Your task to perform on an android device: install app "Booking.com: Hotels and more" Image 0: 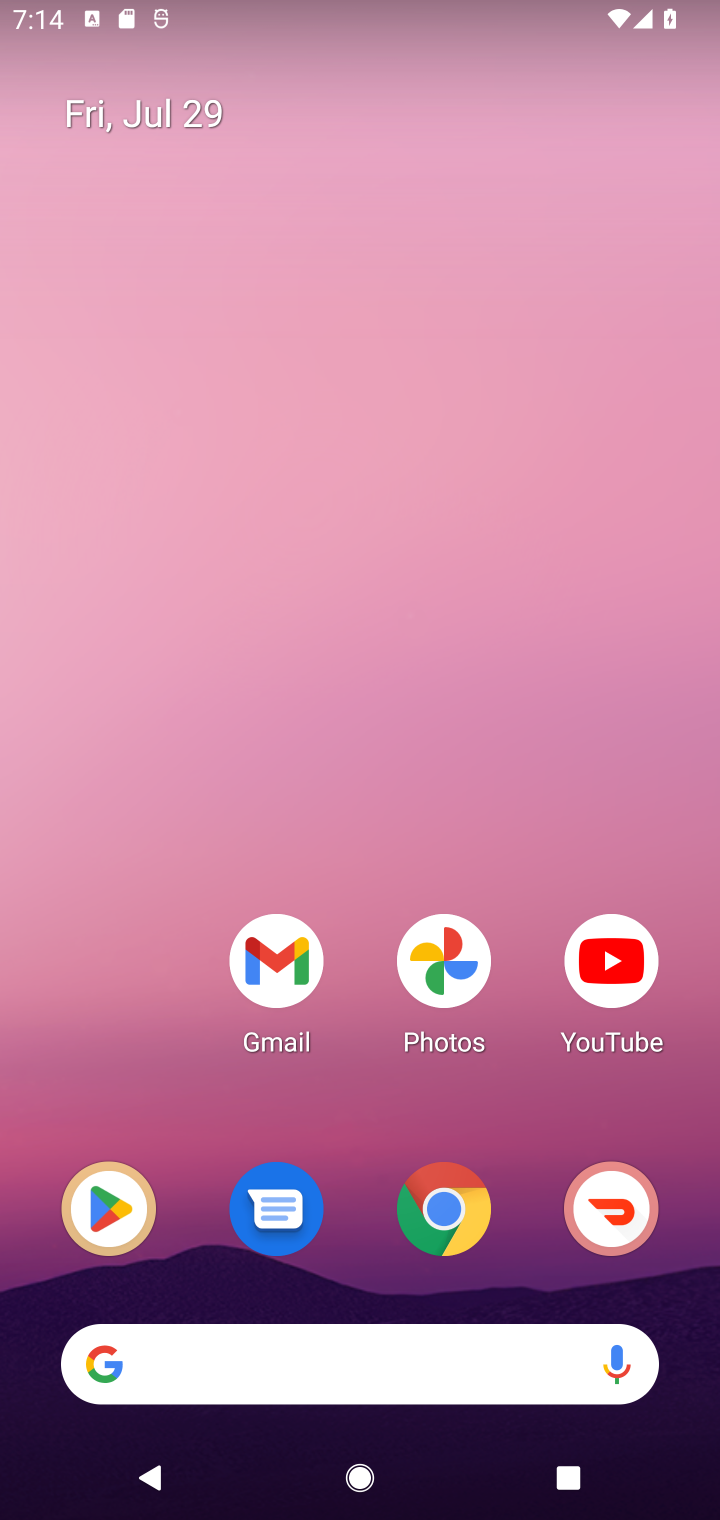
Step 0: click (105, 1207)
Your task to perform on an android device: install app "Booking.com: Hotels and more" Image 1: 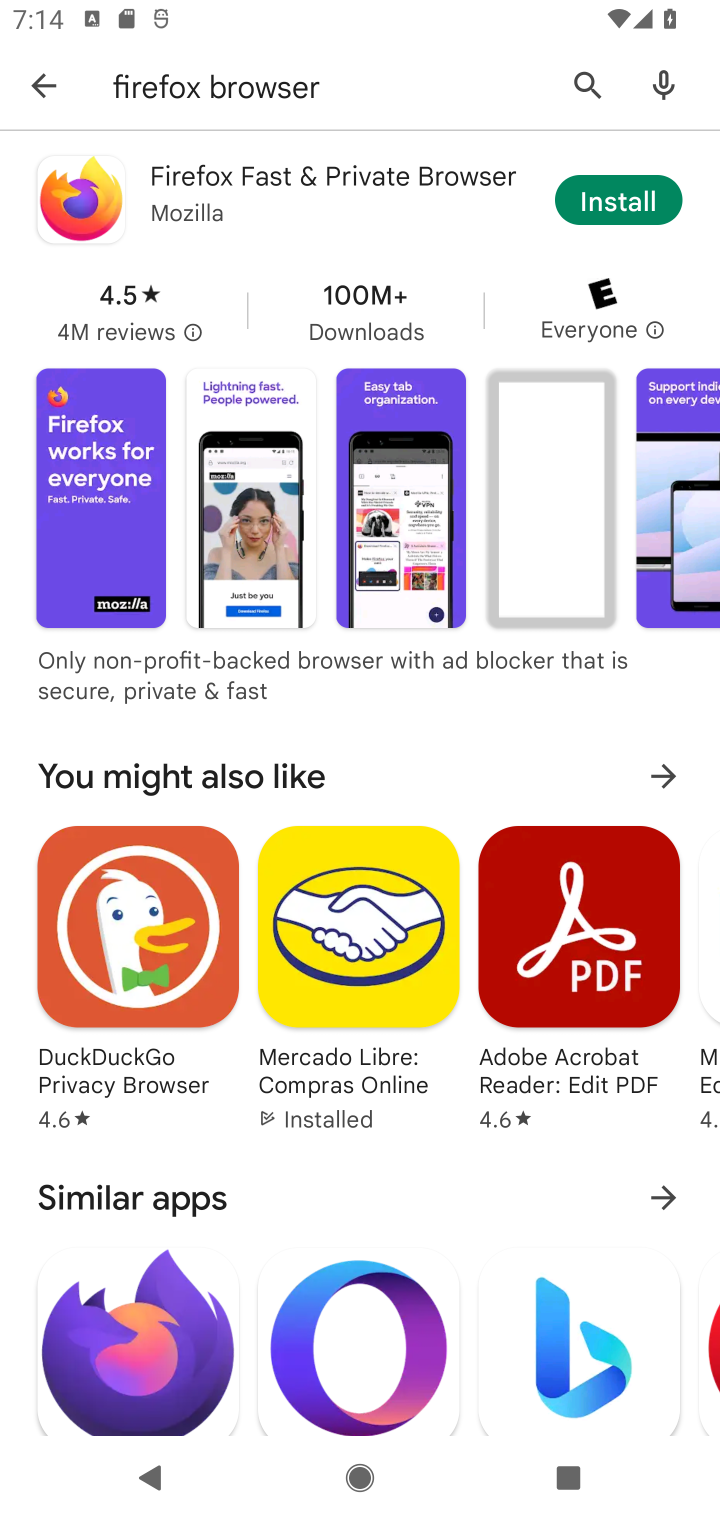
Step 1: click (584, 91)
Your task to perform on an android device: install app "Booking.com: Hotels and more" Image 2: 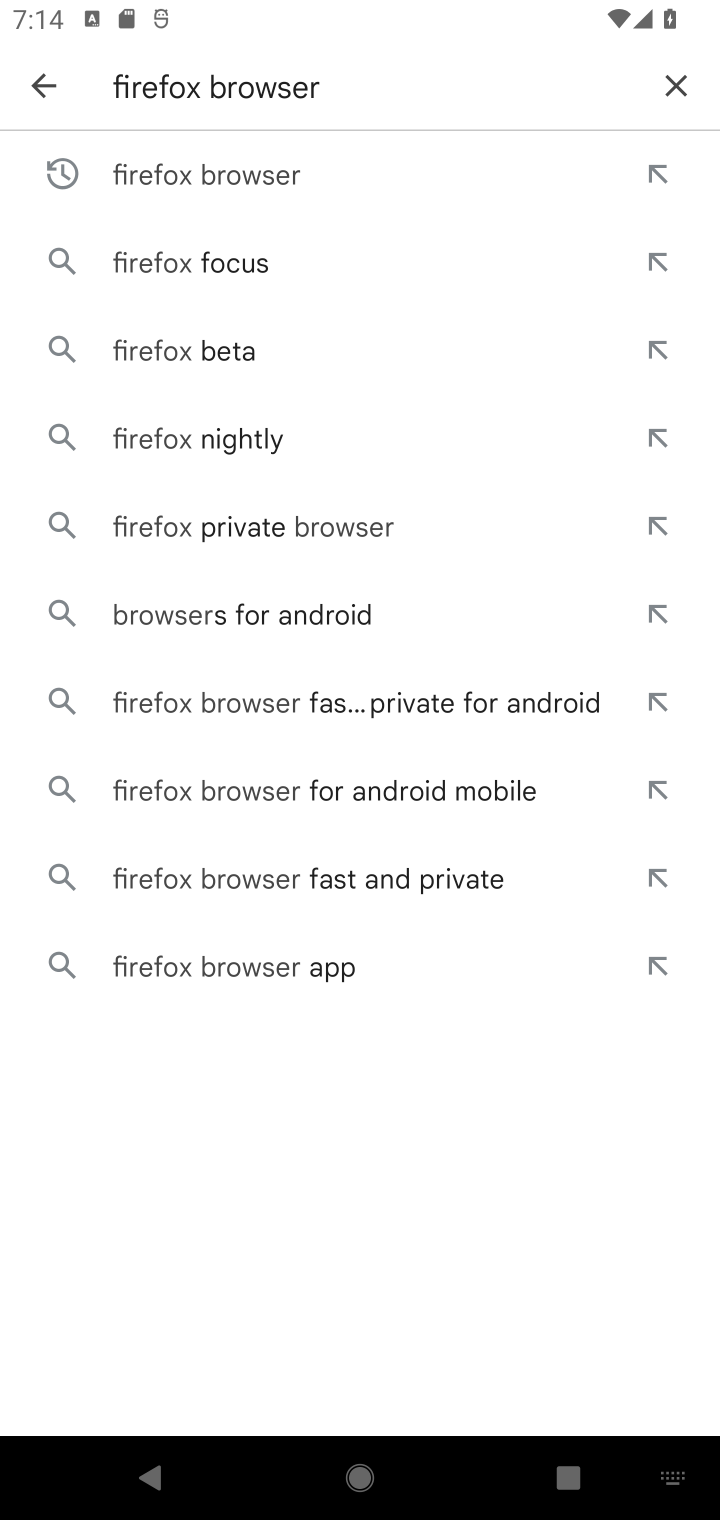
Step 2: click (673, 93)
Your task to perform on an android device: install app "Booking.com: Hotels and more" Image 3: 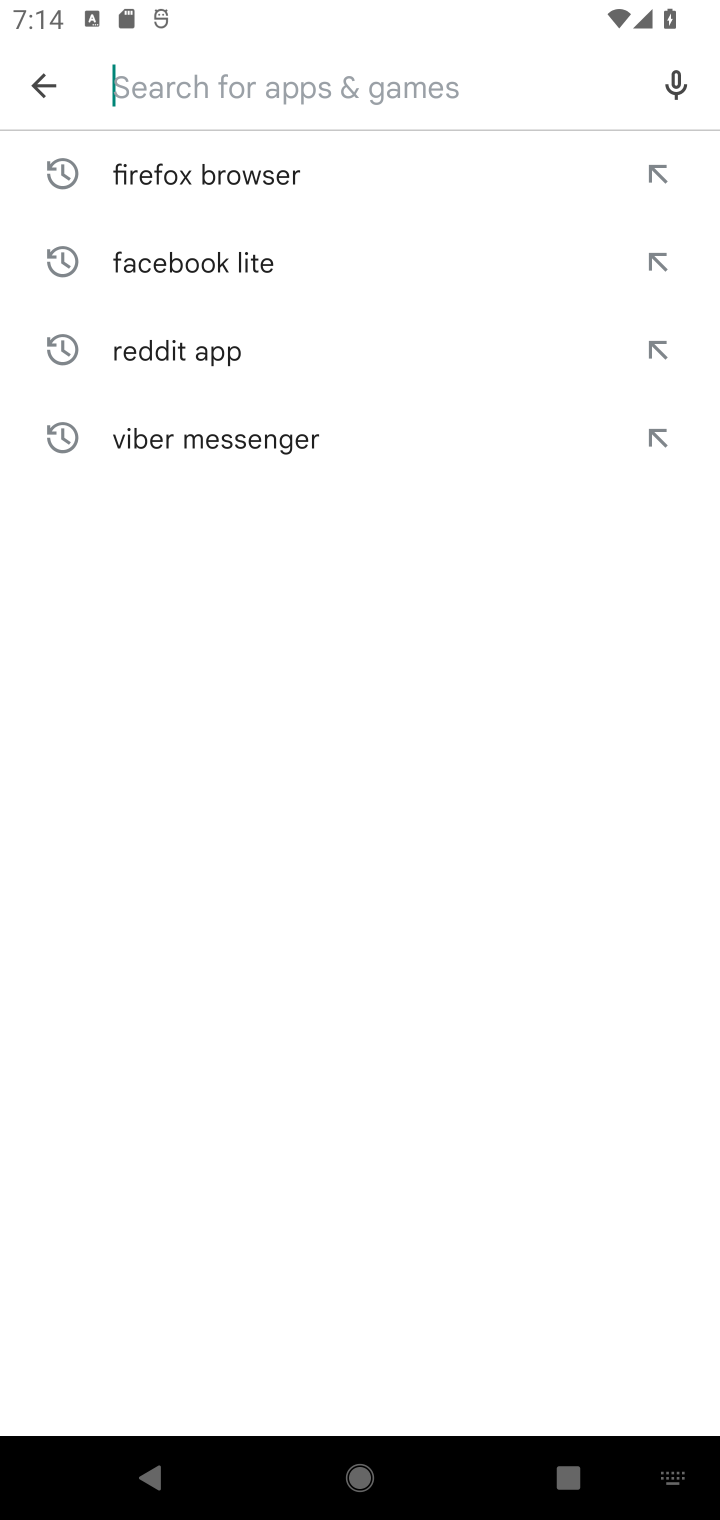
Step 3: type "Booking.com: Hotels and more"
Your task to perform on an android device: install app "Booking.com: Hotels and more" Image 4: 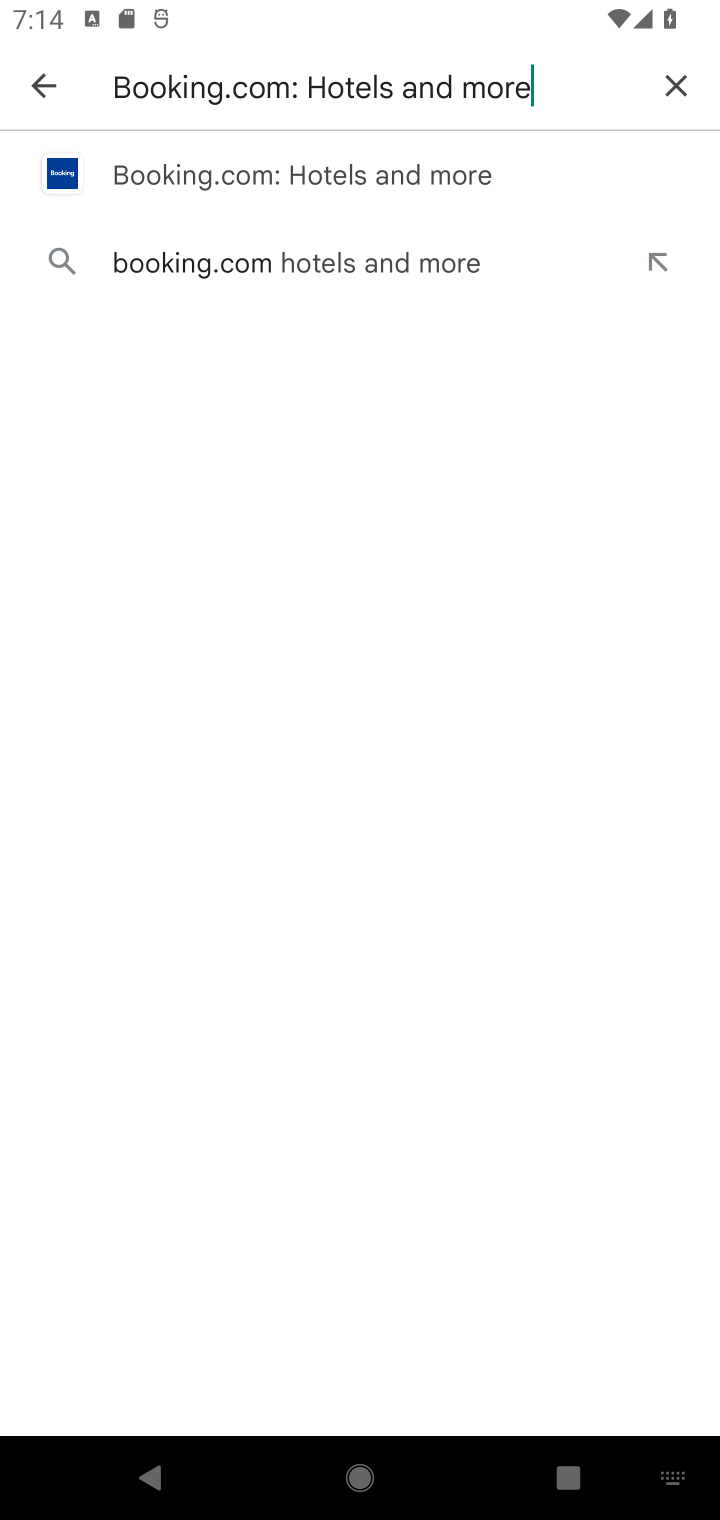
Step 4: click (329, 185)
Your task to perform on an android device: install app "Booking.com: Hotels and more" Image 5: 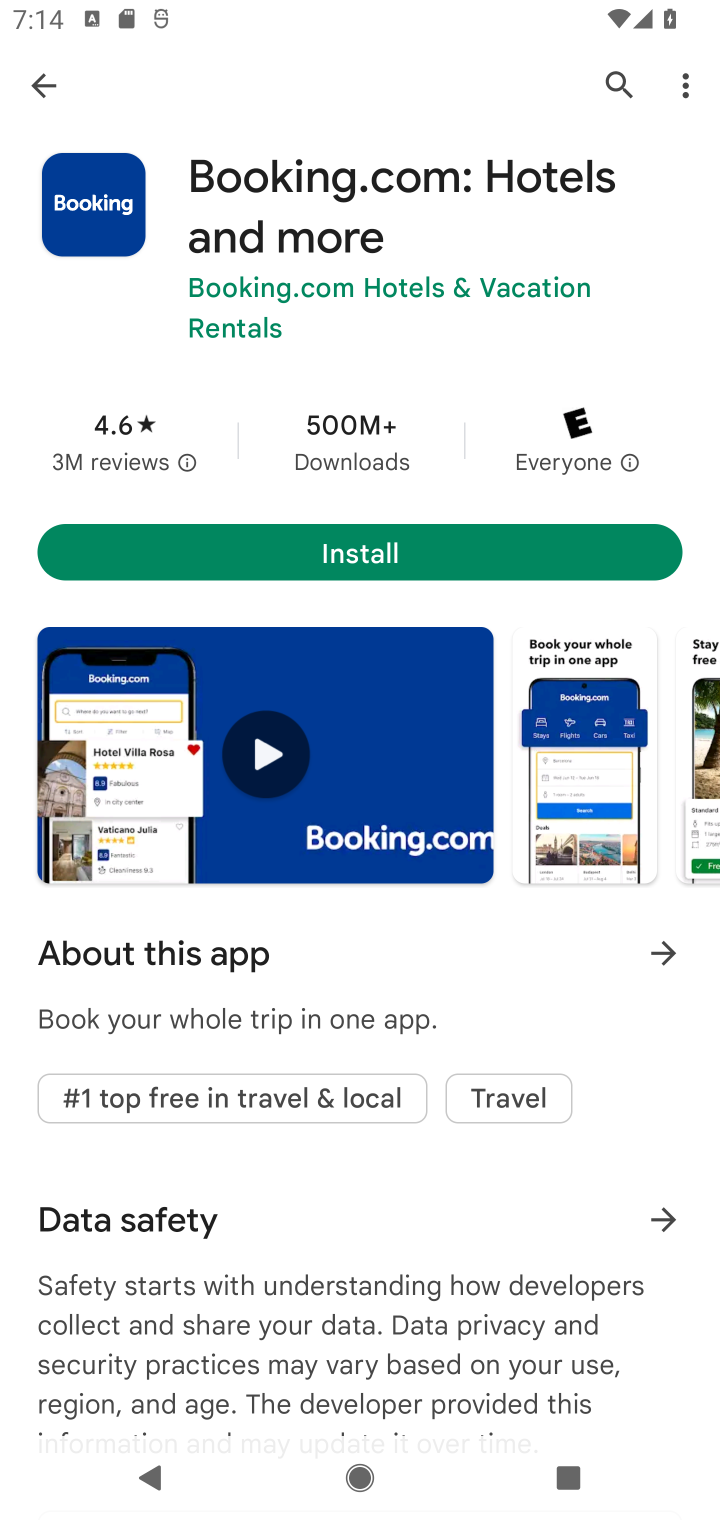
Step 5: click (315, 558)
Your task to perform on an android device: install app "Booking.com: Hotels and more" Image 6: 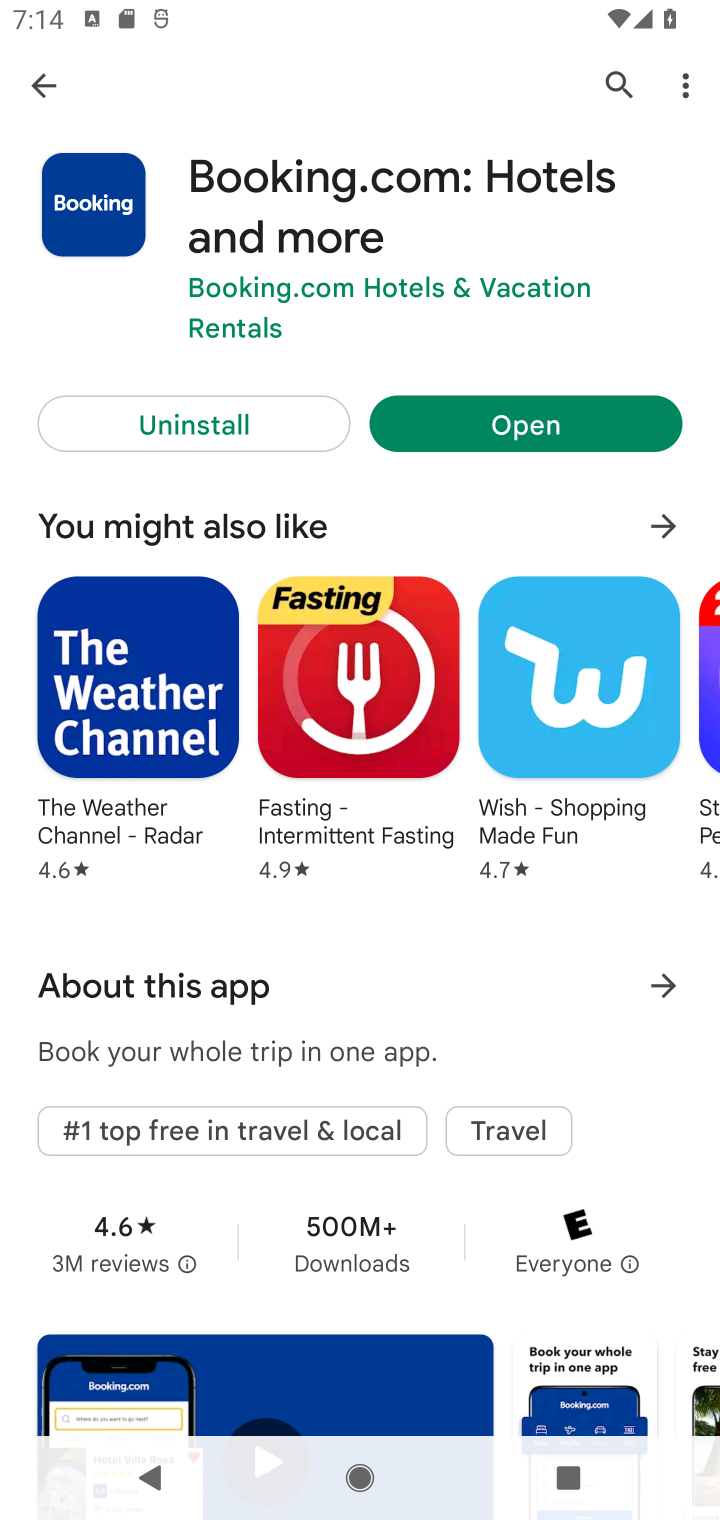
Step 6: task complete